Your task to perform on an android device: What is the news today? Image 0: 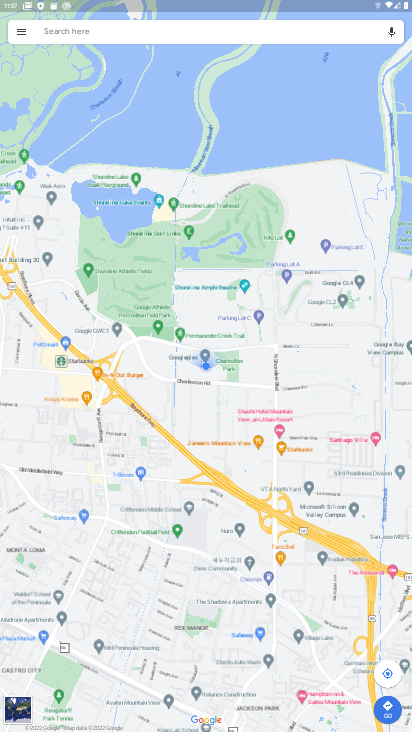
Step 0: press home button
Your task to perform on an android device: What is the news today? Image 1: 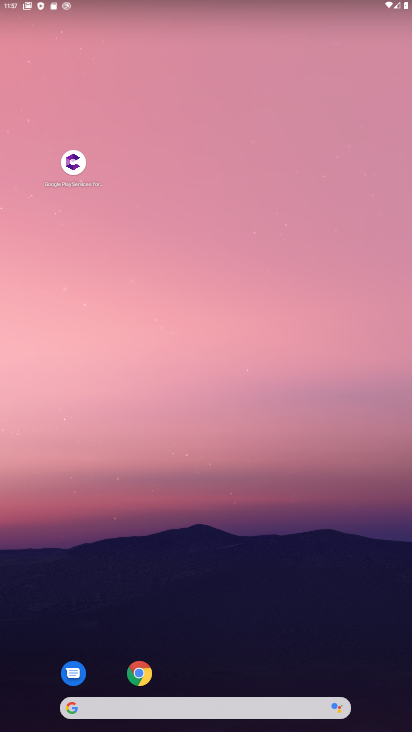
Step 1: click (106, 50)
Your task to perform on an android device: What is the news today? Image 2: 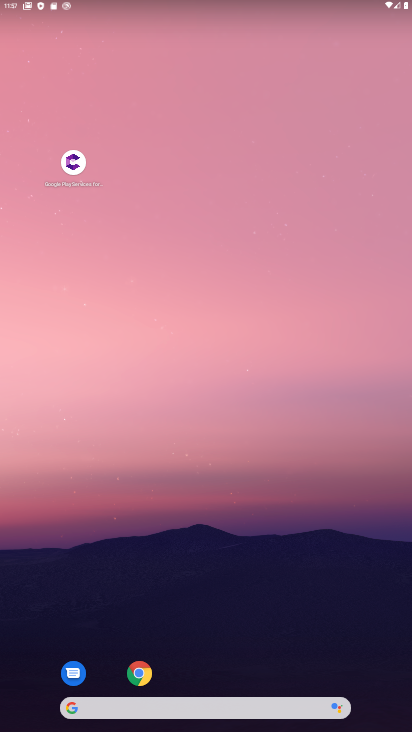
Step 2: click (198, 696)
Your task to perform on an android device: What is the news today? Image 3: 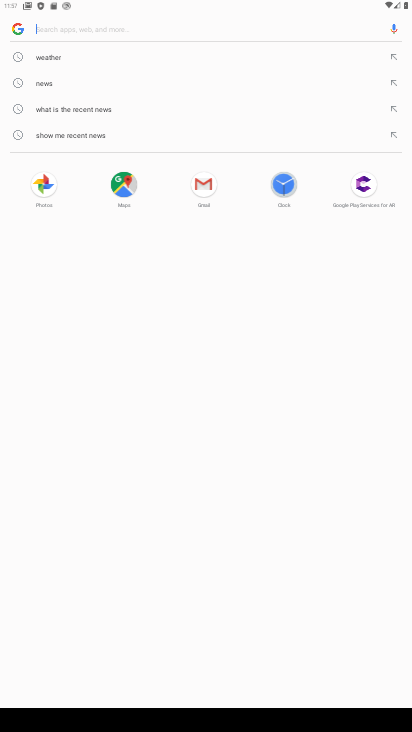
Step 3: click (45, 79)
Your task to perform on an android device: What is the news today? Image 4: 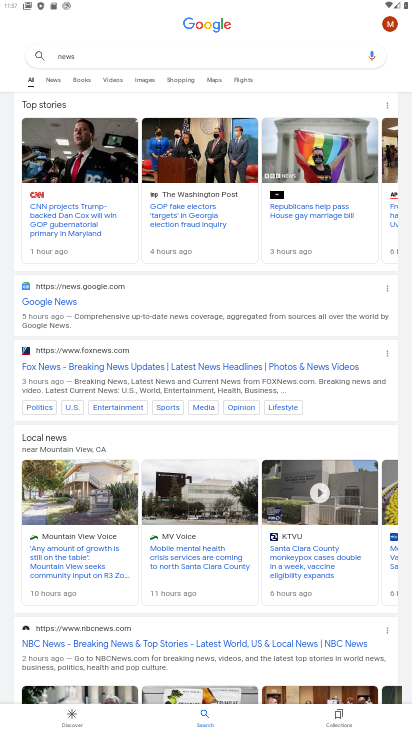
Step 4: task complete